Your task to perform on an android device: Open Reddit.com Image 0: 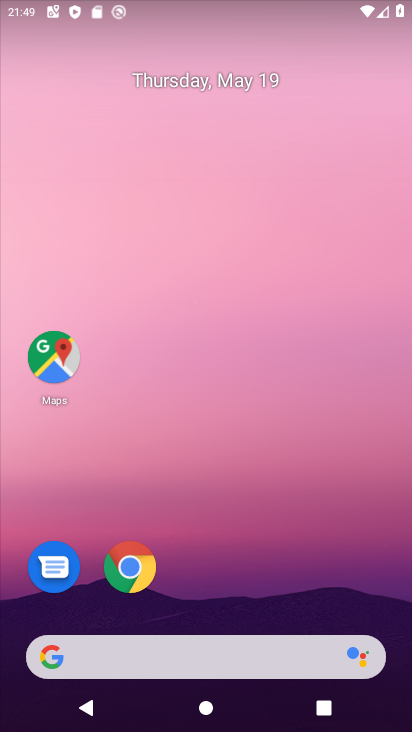
Step 0: press home button
Your task to perform on an android device: Open Reddit.com Image 1: 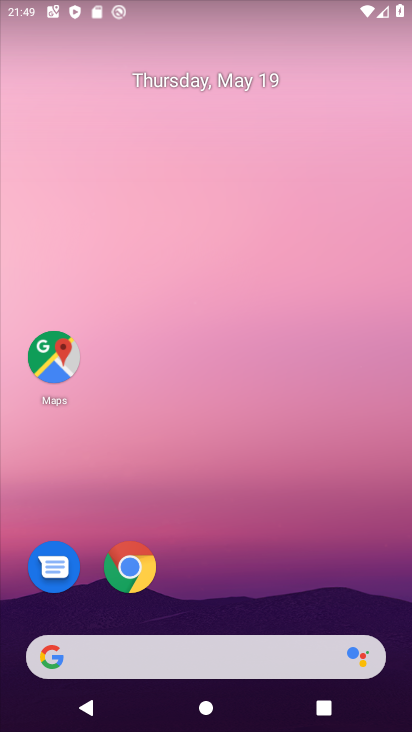
Step 1: click (136, 557)
Your task to perform on an android device: Open Reddit.com Image 2: 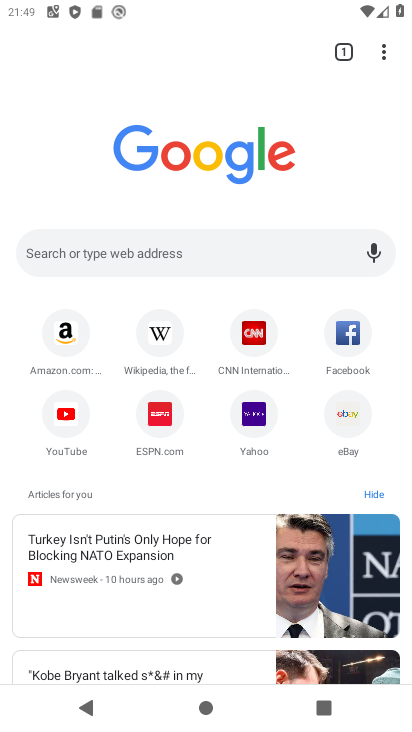
Step 2: click (122, 241)
Your task to perform on an android device: Open Reddit.com Image 3: 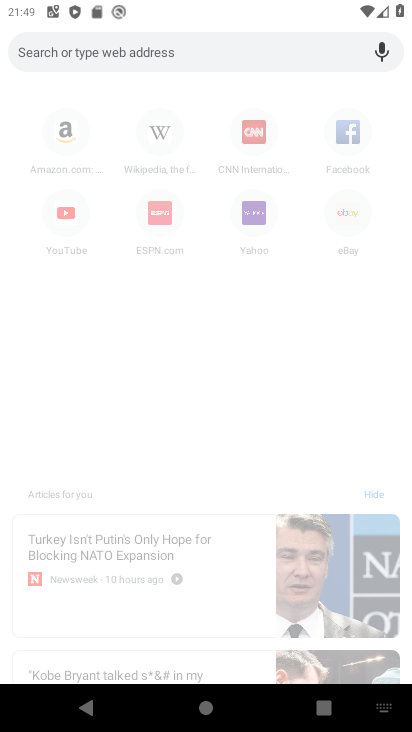
Step 3: type "reddit"
Your task to perform on an android device: Open Reddit.com Image 4: 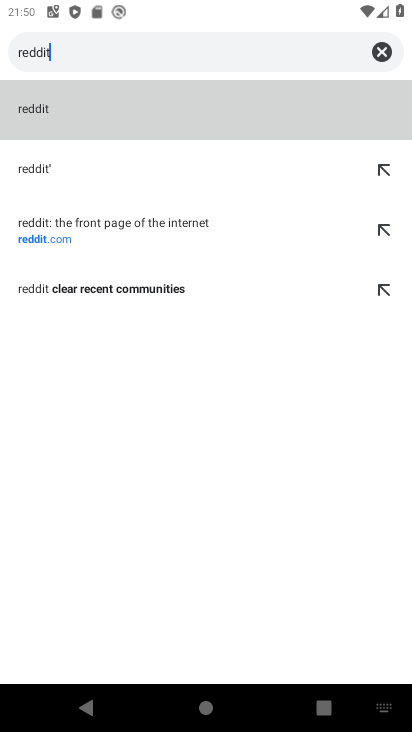
Step 4: click (63, 237)
Your task to perform on an android device: Open Reddit.com Image 5: 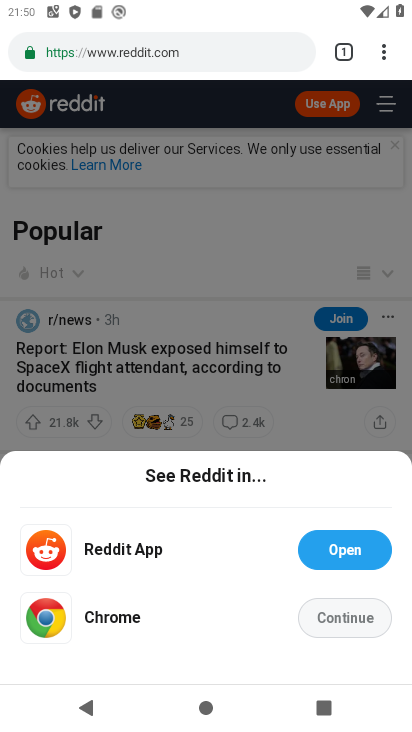
Step 5: click (345, 615)
Your task to perform on an android device: Open Reddit.com Image 6: 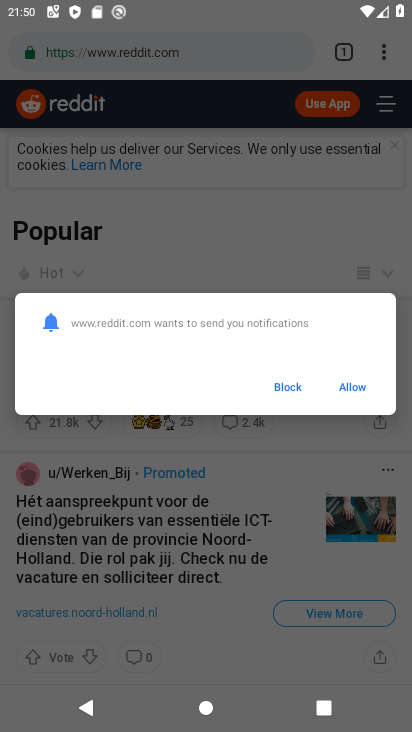
Step 6: click (284, 382)
Your task to perform on an android device: Open Reddit.com Image 7: 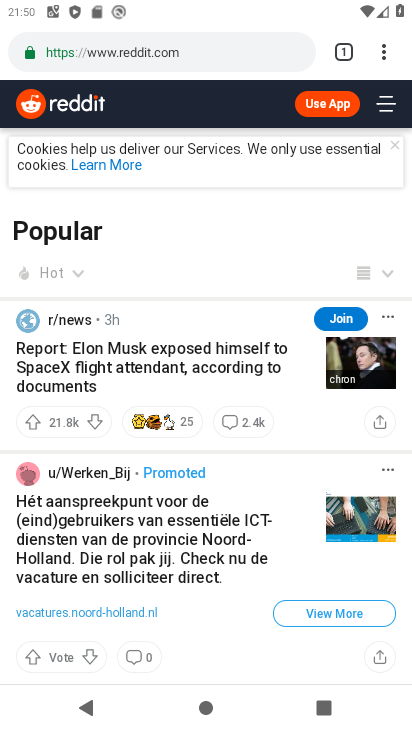
Step 7: task complete